Your task to perform on an android device: Go to Android settings Image 0: 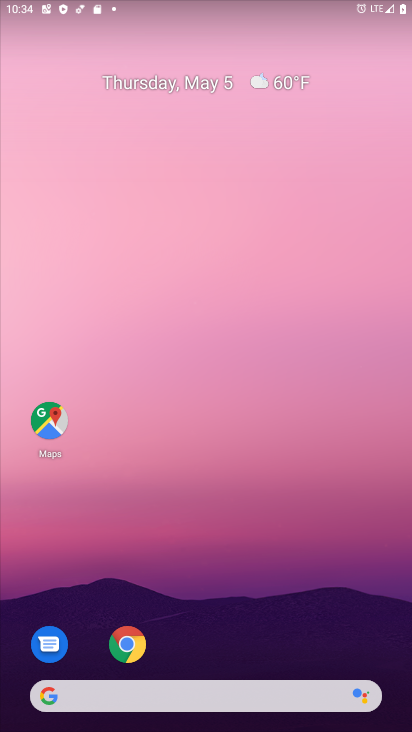
Step 0: drag from (195, 597) to (227, 163)
Your task to perform on an android device: Go to Android settings Image 1: 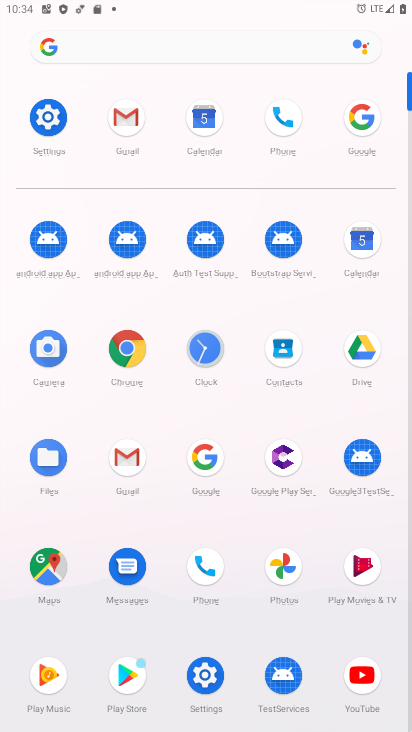
Step 1: click (40, 117)
Your task to perform on an android device: Go to Android settings Image 2: 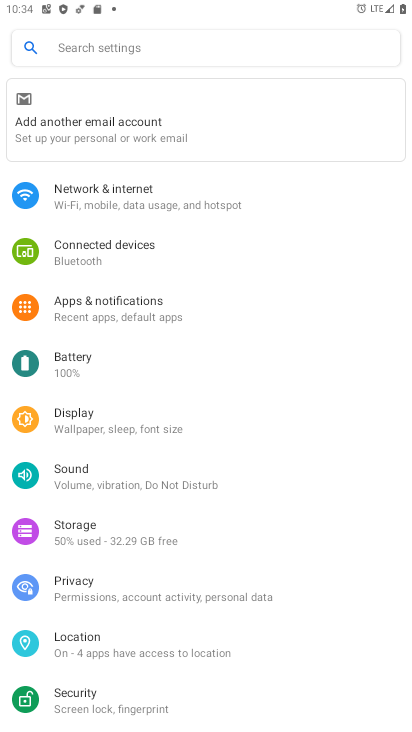
Step 2: drag from (212, 675) to (267, 297)
Your task to perform on an android device: Go to Android settings Image 3: 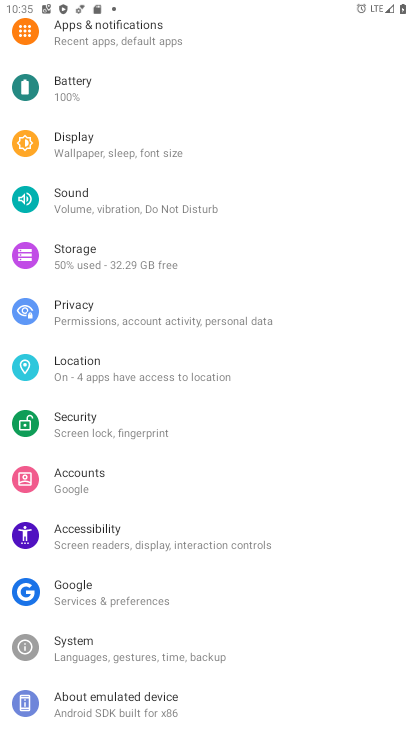
Step 3: click (171, 707)
Your task to perform on an android device: Go to Android settings Image 4: 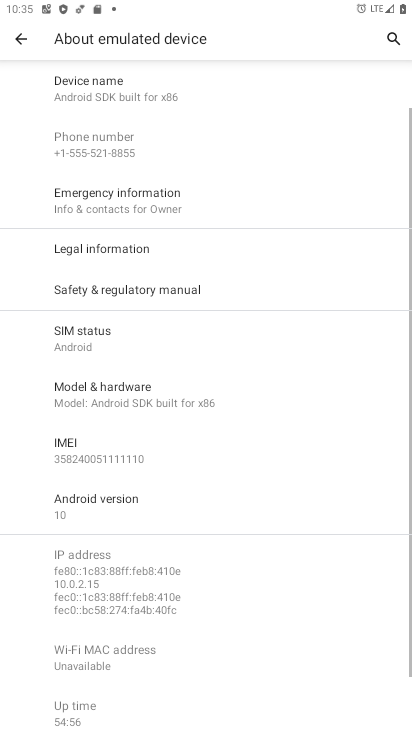
Step 4: drag from (152, 633) to (276, 295)
Your task to perform on an android device: Go to Android settings Image 5: 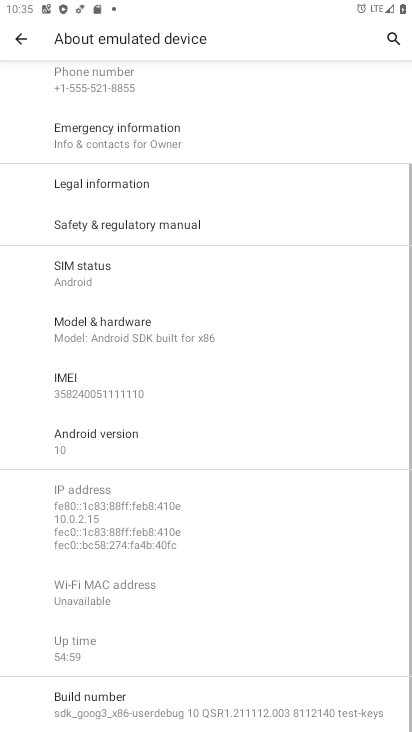
Step 5: drag from (186, 279) to (194, 554)
Your task to perform on an android device: Go to Android settings Image 6: 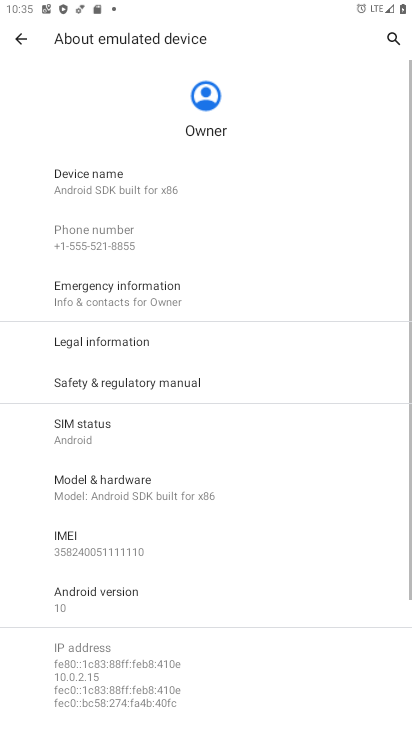
Step 6: click (141, 596)
Your task to perform on an android device: Go to Android settings Image 7: 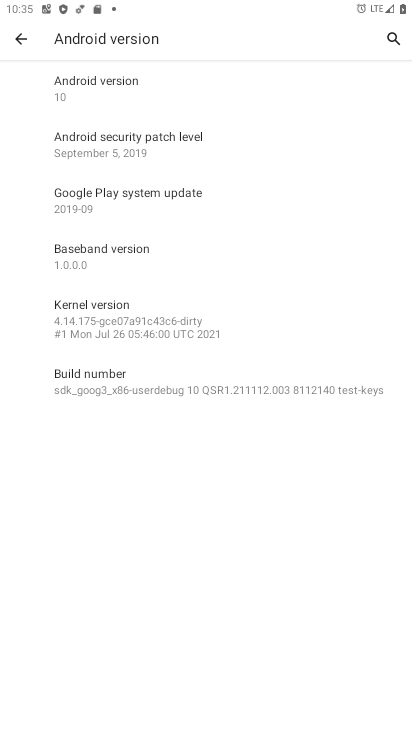
Step 7: task complete